Your task to perform on an android device: Go to internet settings Image 0: 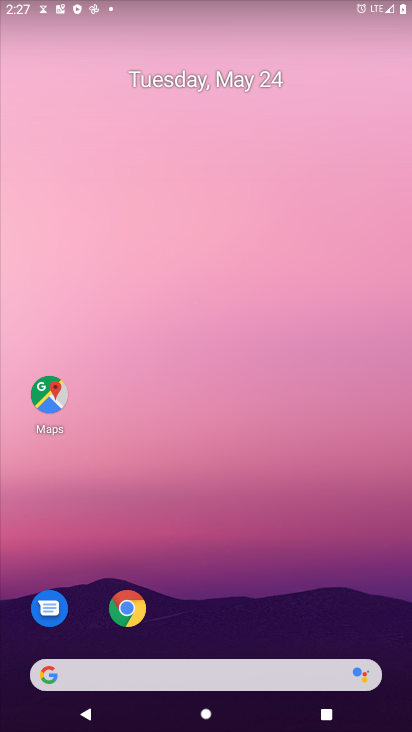
Step 0: drag from (287, 682) to (193, 114)
Your task to perform on an android device: Go to internet settings Image 1: 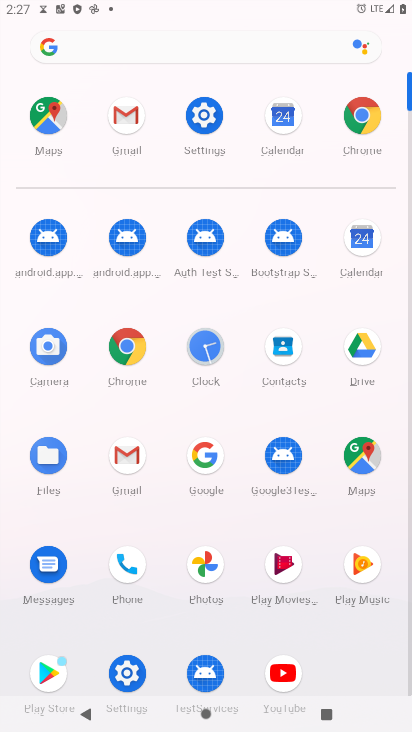
Step 1: click (221, 114)
Your task to perform on an android device: Go to internet settings Image 2: 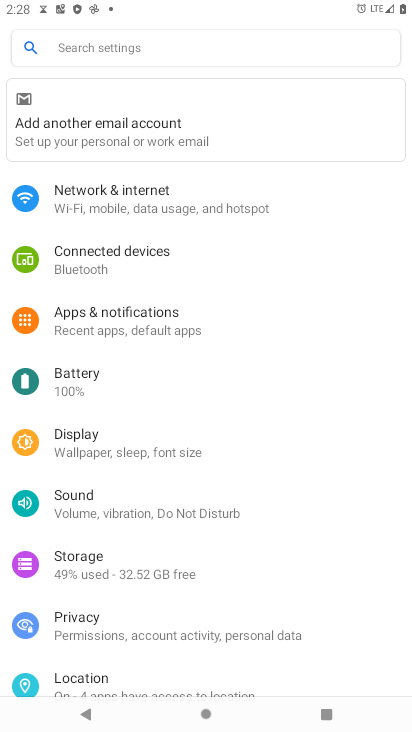
Step 2: click (152, 203)
Your task to perform on an android device: Go to internet settings Image 3: 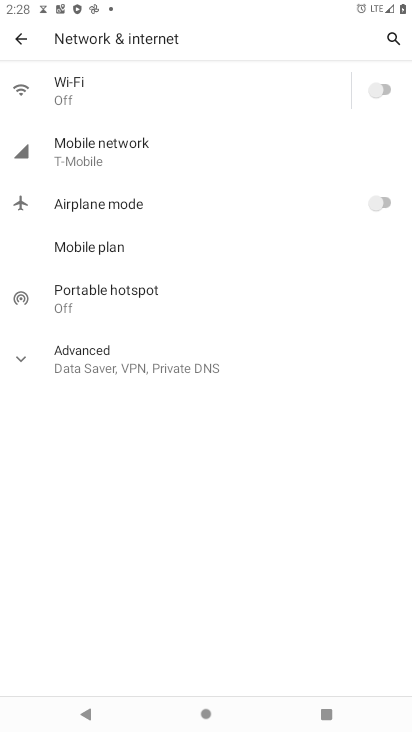
Step 3: task complete